Your task to perform on an android device: Open Youtube and go to "Your channel" Image 0: 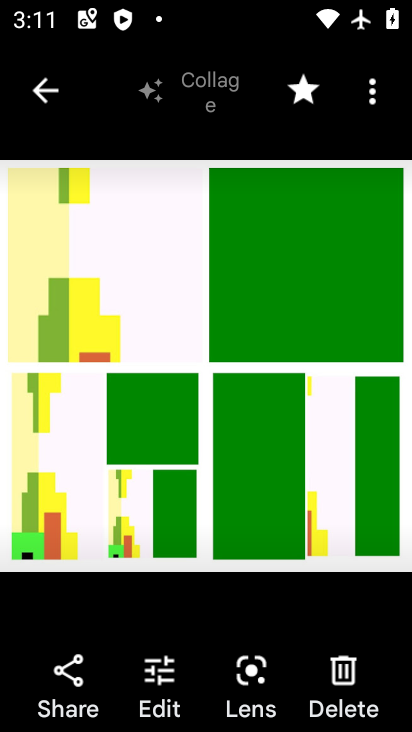
Step 0: press home button
Your task to perform on an android device: Open Youtube and go to "Your channel" Image 1: 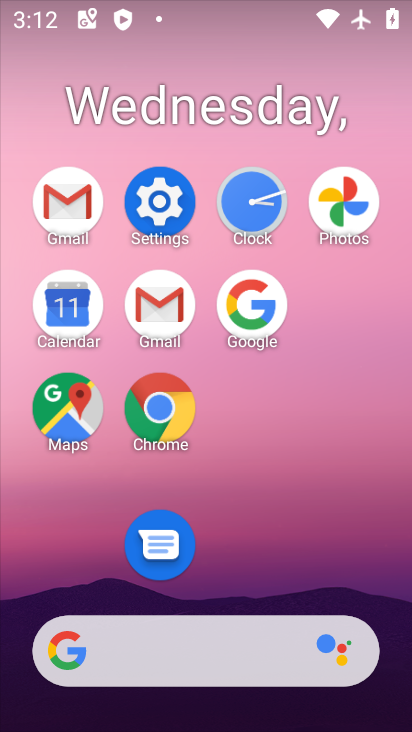
Step 1: drag from (279, 534) to (321, 208)
Your task to perform on an android device: Open Youtube and go to "Your channel" Image 2: 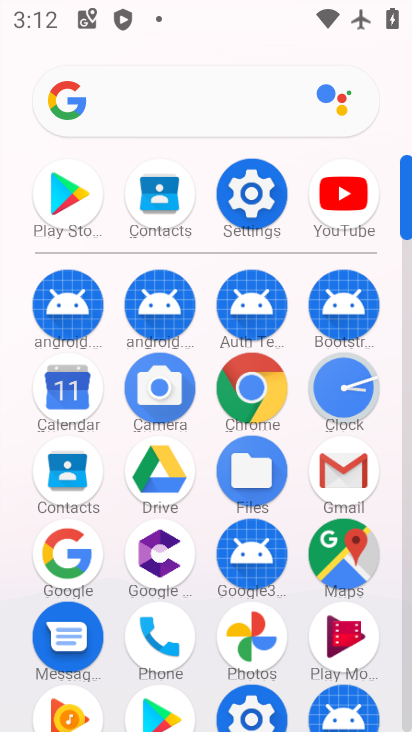
Step 2: click (348, 195)
Your task to perform on an android device: Open Youtube and go to "Your channel" Image 3: 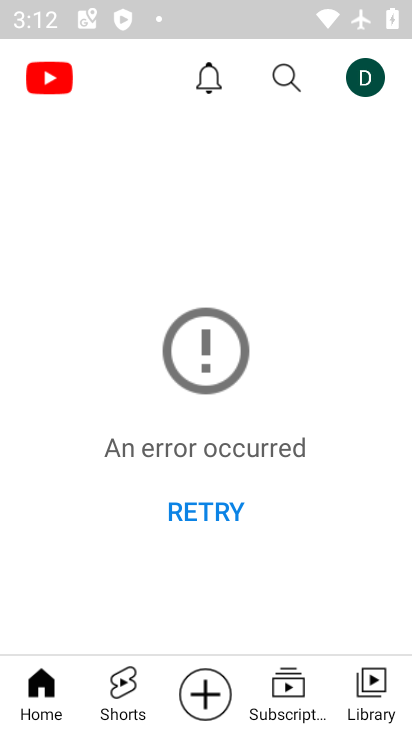
Step 3: task complete